Your task to perform on an android device: Search for flights from San Francisco to Tokyo Image 0: 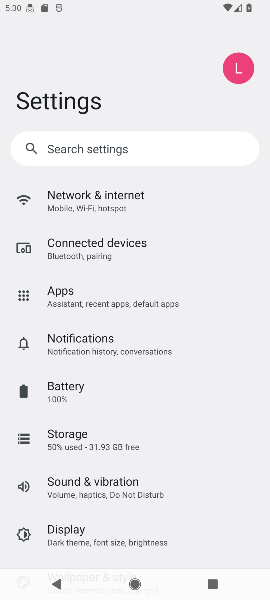
Step 0: press home button
Your task to perform on an android device: Search for flights from San Francisco to Tokyo Image 1: 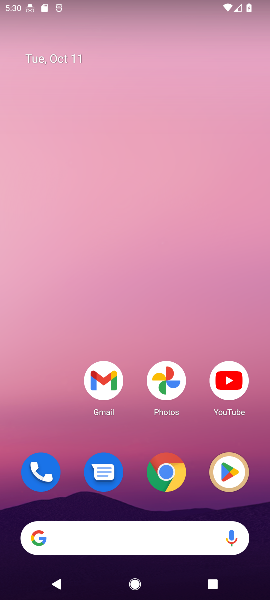
Step 1: click (156, 472)
Your task to perform on an android device: Search for flights from San Francisco to Tokyo Image 2: 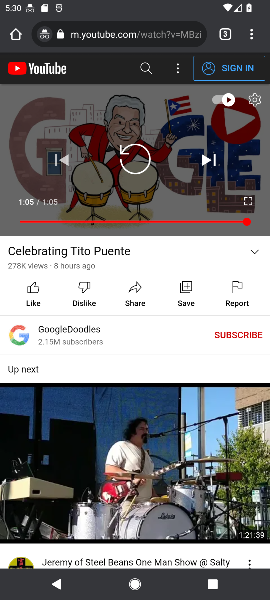
Step 2: click (108, 29)
Your task to perform on an android device: Search for flights from San Francisco to Tokyo Image 3: 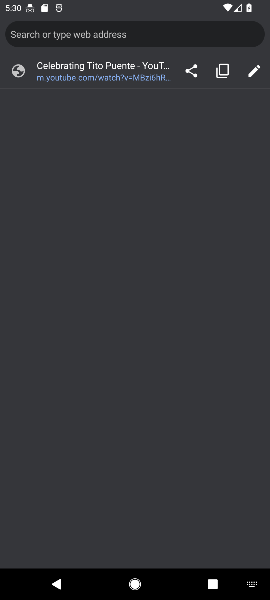
Step 3: type "flights from San Francisco to Tokyo"
Your task to perform on an android device: Search for flights from San Francisco to Tokyo Image 4: 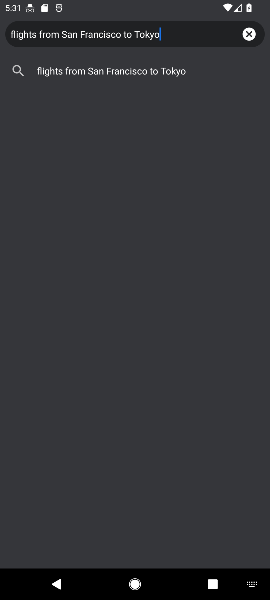
Step 4: click (66, 65)
Your task to perform on an android device: Search for flights from San Francisco to Tokyo Image 5: 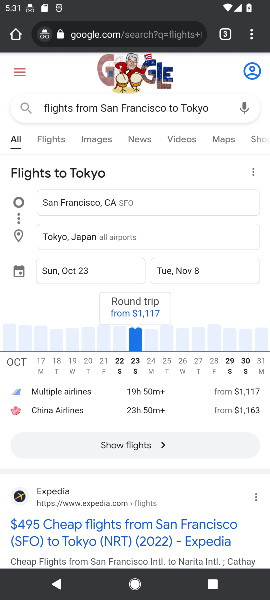
Step 5: click (51, 142)
Your task to perform on an android device: Search for flights from San Francisco to Tokyo Image 6: 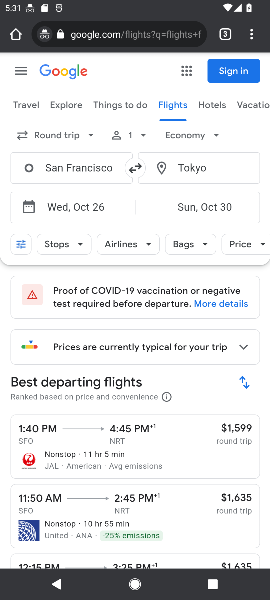
Step 6: task complete